Your task to perform on an android device: Open calendar and show me the third week of next month Image 0: 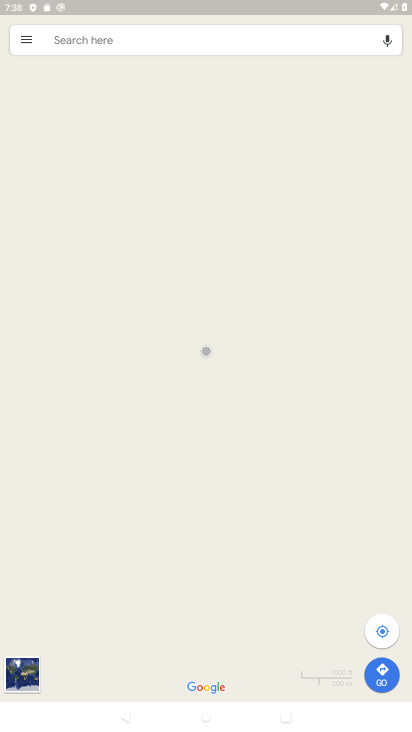
Step 0: press home button
Your task to perform on an android device: Open calendar and show me the third week of next month Image 1: 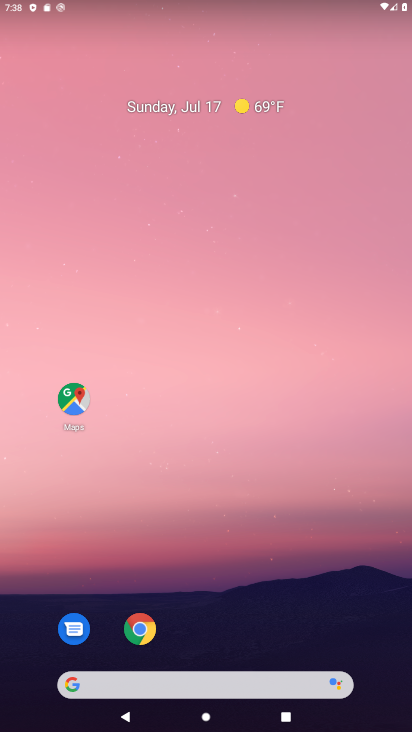
Step 1: drag from (230, 639) to (249, 118)
Your task to perform on an android device: Open calendar and show me the third week of next month Image 2: 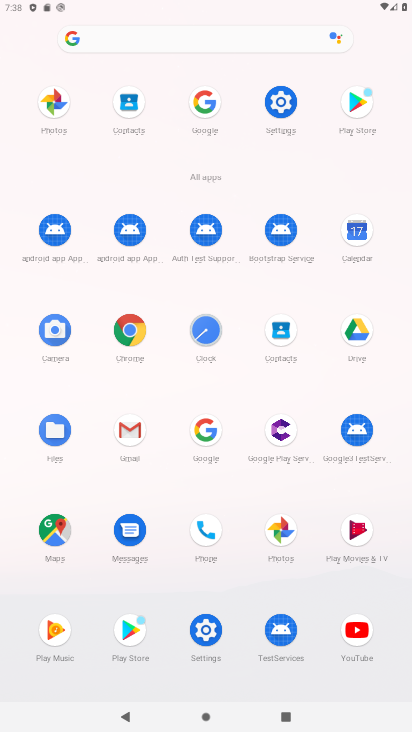
Step 2: click (359, 221)
Your task to perform on an android device: Open calendar and show me the third week of next month Image 3: 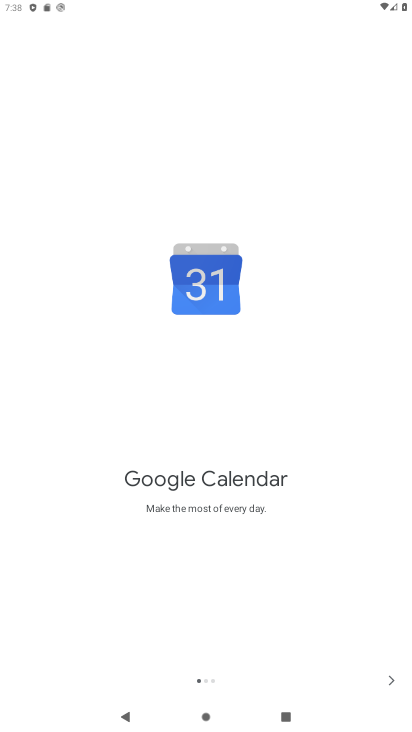
Step 3: click (386, 693)
Your task to perform on an android device: Open calendar and show me the third week of next month Image 4: 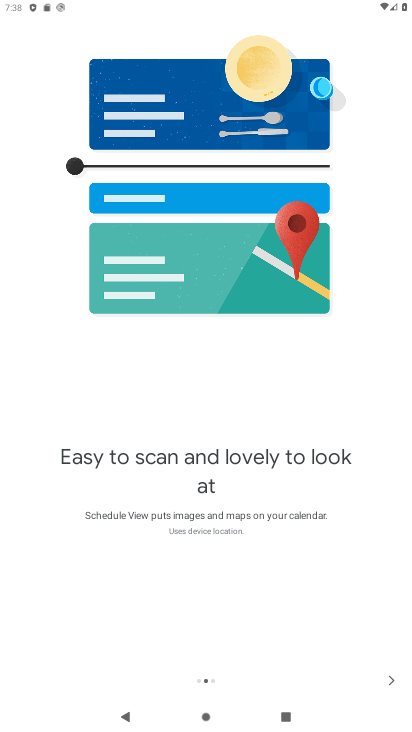
Step 4: click (384, 693)
Your task to perform on an android device: Open calendar and show me the third week of next month Image 5: 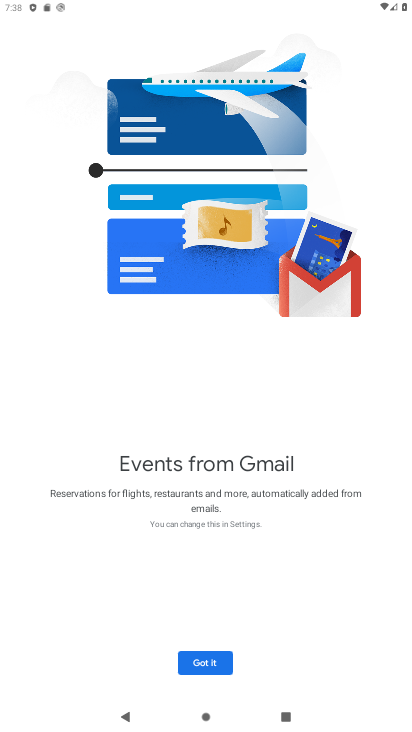
Step 5: click (215, 666)
Your task to perform on an android device: Open calendar and show me the third week of next month Image 6: 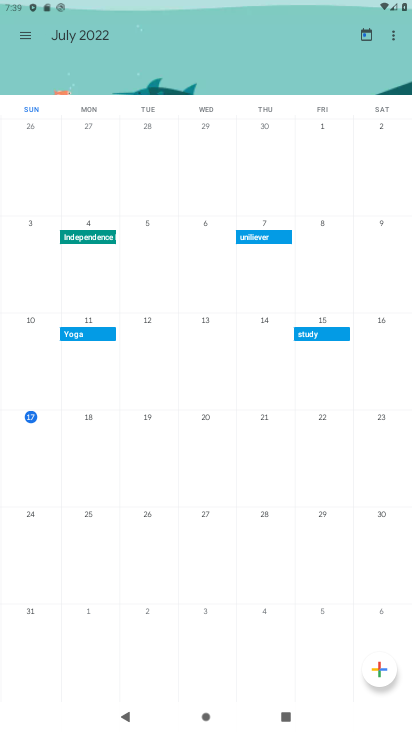
Step 6: drag from (401, 633) to (70, 615)
Your task to perform on an android device: Open calendar and show me the third week of next month Image 7: 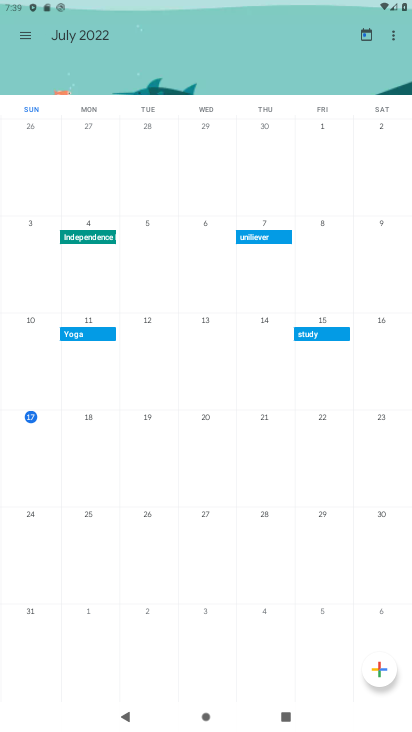
Step 7: drag from (397, 620) to (4, 463)
Your task to perform on an android device: Open calendar and show me the third week of next month Image 8: 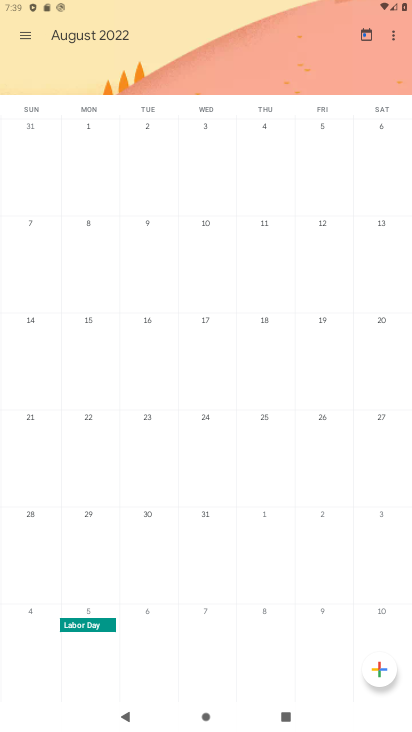
Step 8: click (268, 330)
Your task to perform on an android device: Open calendar and show me the third week of next month Image 9: 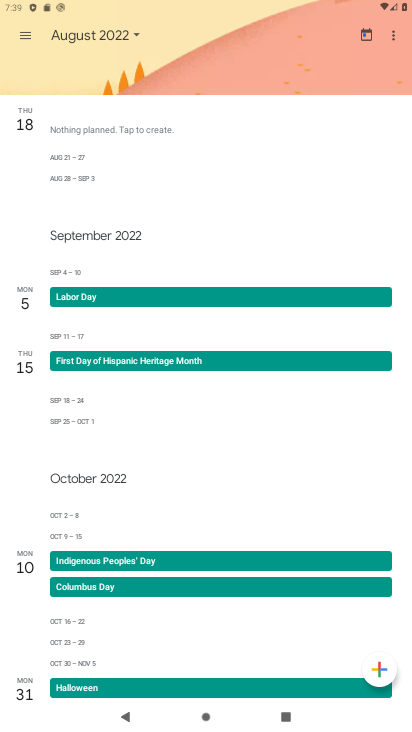
Step 9: task complete